Your task to perform on an android device: move a message to another label in the gmail app Image 0: 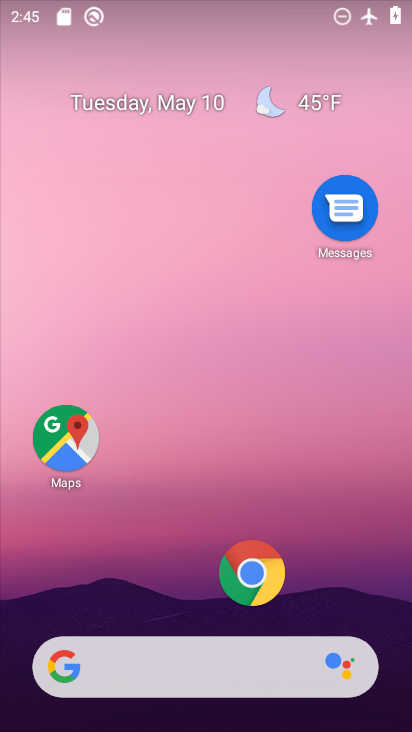
Step 0: drag from (215, 624) to (241, 126)
Your task to perform on an android device: move a message to another label in the gmail app Image 1: 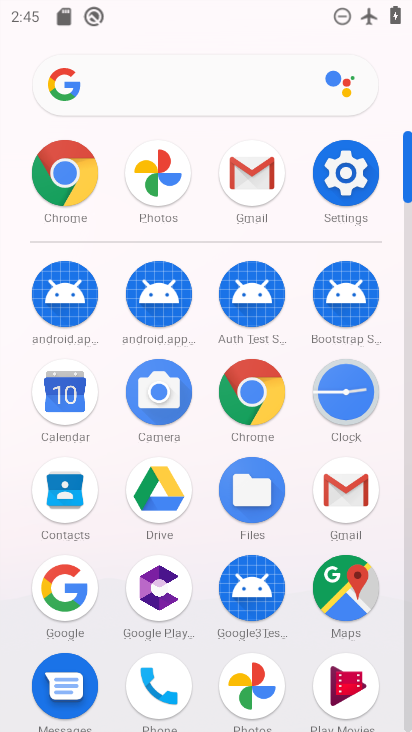
Step 1: click (353, 502)
Your task to perform on an android device: move a message to another label in the gmail app Image 2: 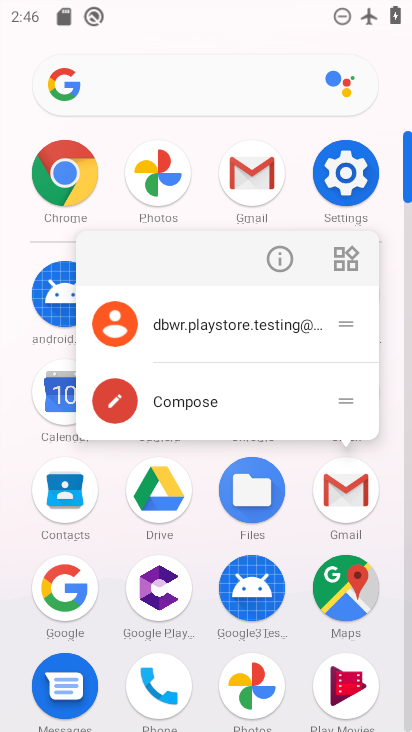
Step 2: click (281, 270)
Your task to perform on an android device: move a message to another label in the gmail app Image 3: 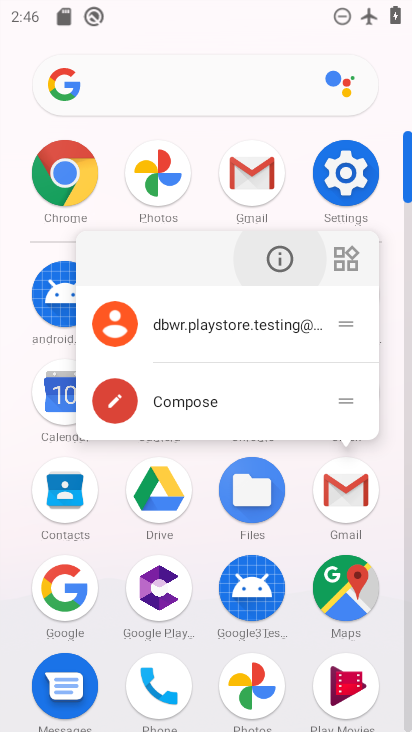
Step 3: click (281, 270)
Your task to perform on an android device: move a message to another label in the gmail app Image 4: 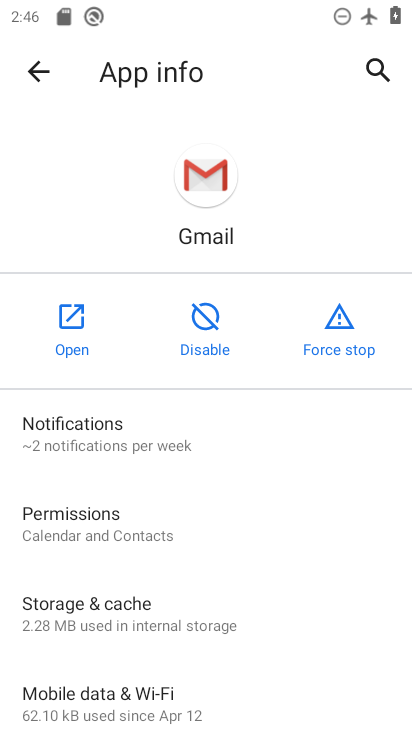
Step 4: click (69, 328)
Your task to perform on an android device: move a message to another label in the gmail app Image 5: 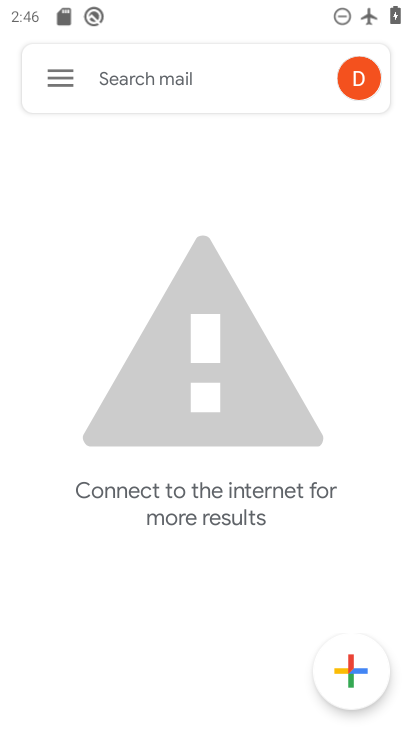
Step 5: click (53, 77)
Your task to perform on an android device: move a message to another label in the gmail app Image 6: 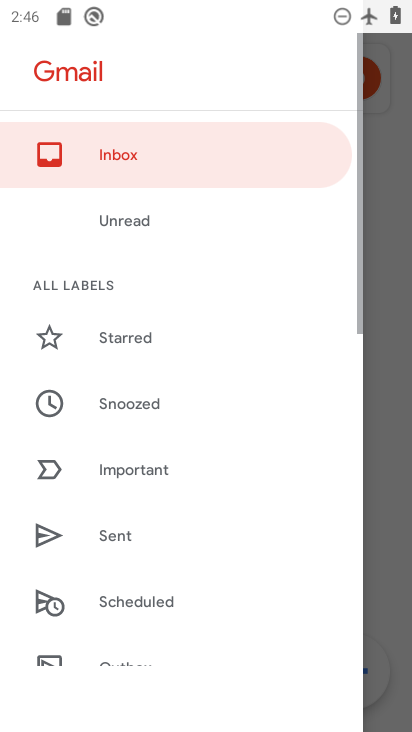
Step 6: drag from (146, 610) to (258, 169)
Your task to perform on an android device: move a message to another label in the gmail app Image 7: 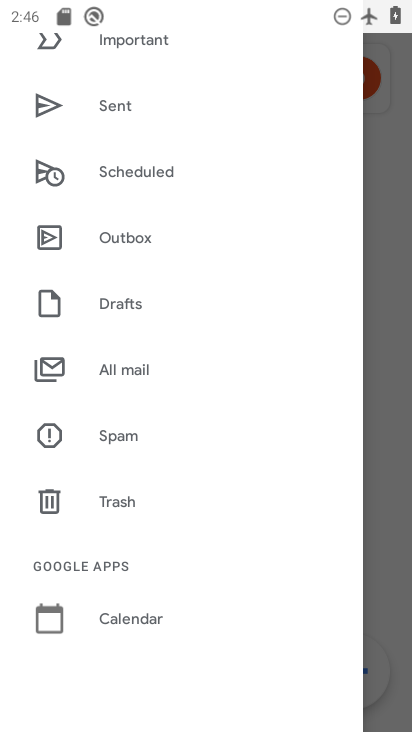
Step 7: drag from (115, 577) to (221, 254)
Your task to perform on an android device: move a message to another label in the gmail app Image 8: 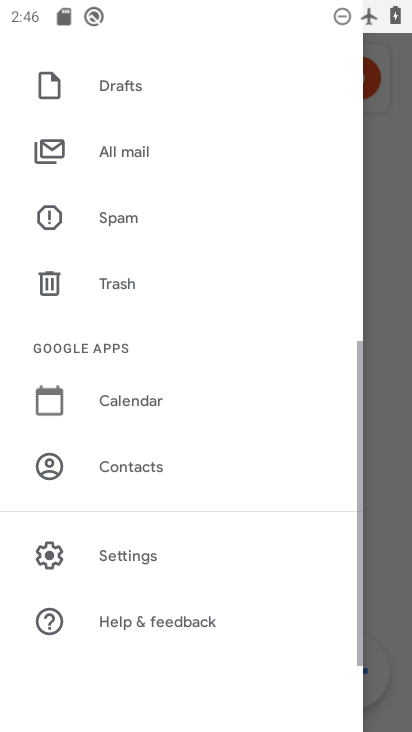
Step 8: click (139, 550)
Your task to perform on an android device: move a message to another label in the gmail app Image 9: 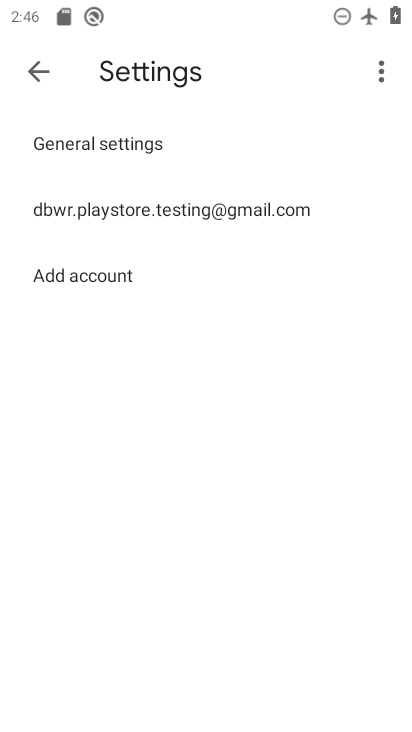
Step 9: click (181, 194)
Your task to perform on an android device: move a message to another label in the gmail app Image 10: 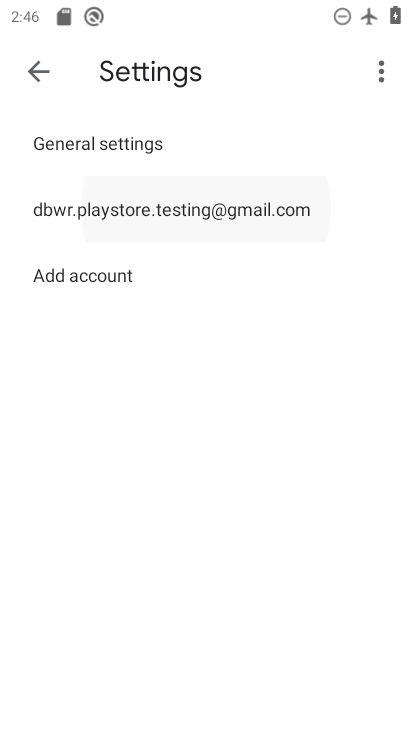
Step 10: click (179, 195)
Your task to perform on an android device: move a message to another label in the gmail app Image 11: 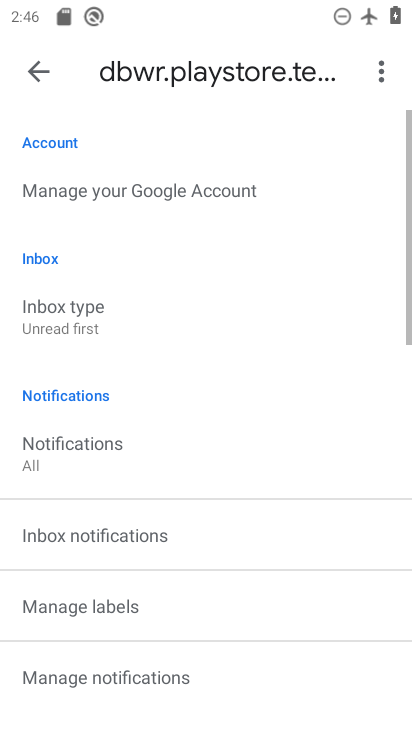
Step 11: click (292, 224)
Your task to perform on an android device: move a message to another label in the gmail app Image 12: 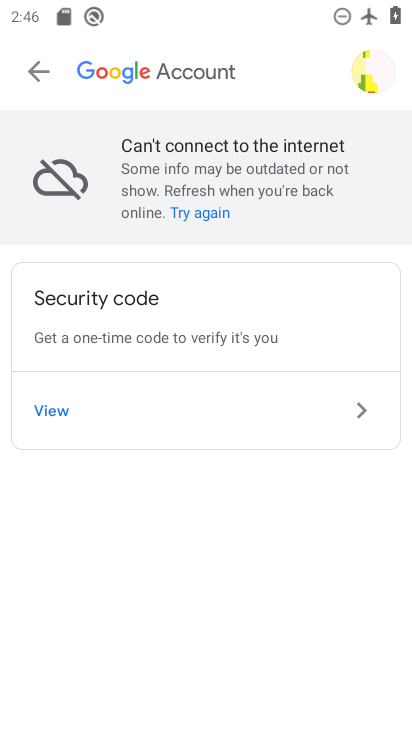
Step 12: click (27, 75)
Your task to perform on an android device: move a message to another label in the gmail app Image 13: 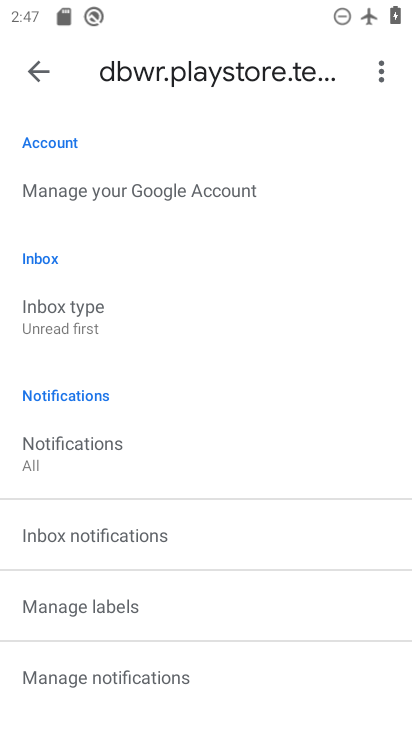
Step 13: click (43, 80)
Your task to perform on an android device: move a message to another label in the gmail app Image 14: 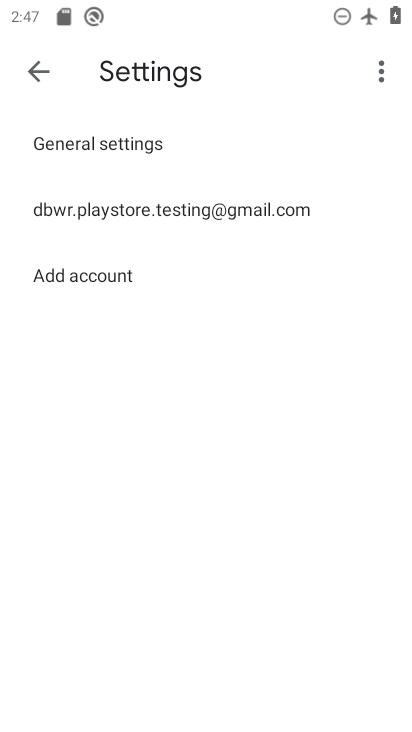
Step 14: click (45, 71)
Your task to perform on an android device: move a message to another label in the gmail app Image 15: 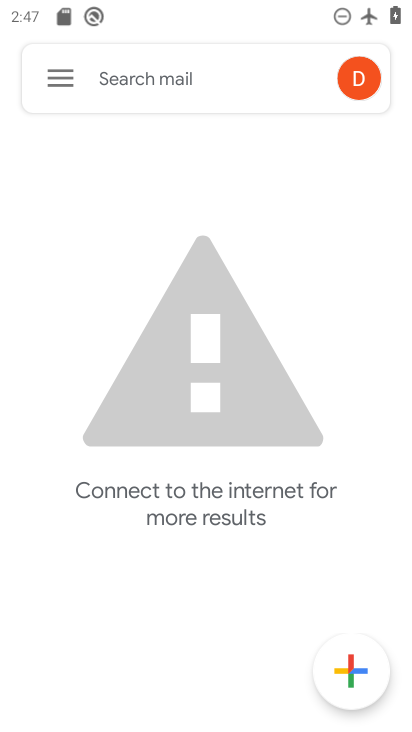
Step 15: task complete